Your task to perform on an android device: empty trash in the gmail app Image 0: 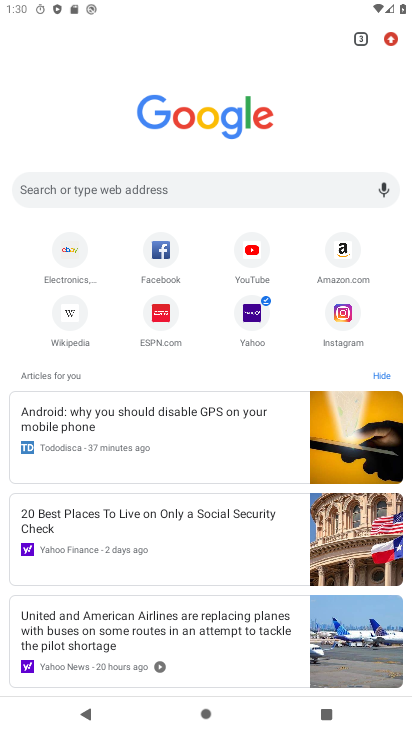
Step 0: press home button
Your task to perform on an android device: empty trash in the gmail app Image 1: 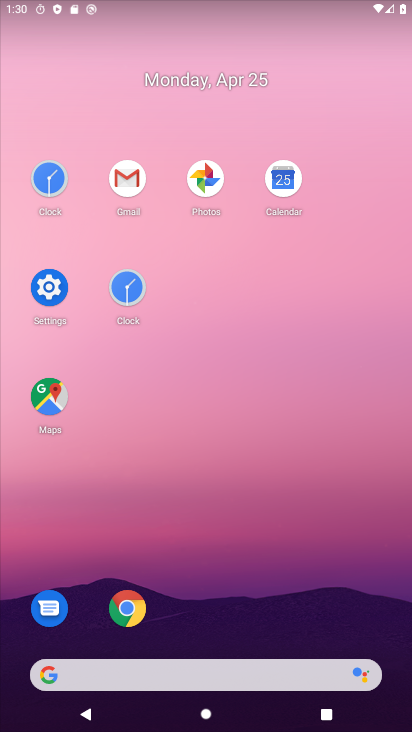
Step 1: click (130, 170)
Your task to perform on an android device: empty trash in the gmail app Image 2: 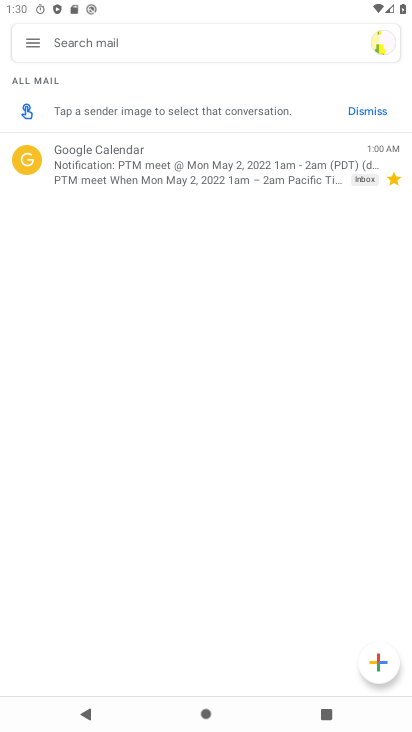
Step 2: click (30, 46)
Your task to perform on an android device: empty trash in the gmail app Image 3: 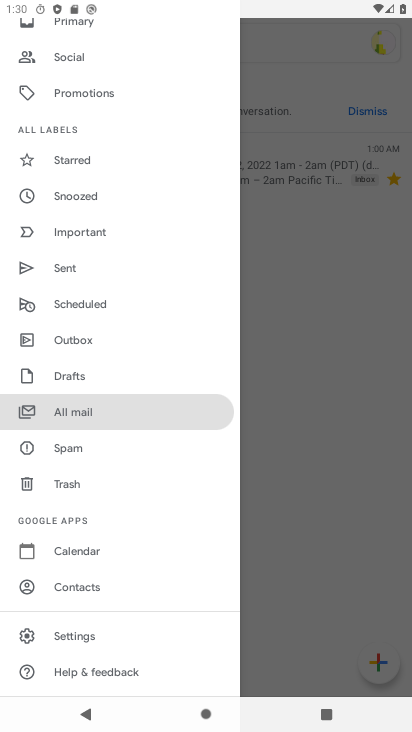
Step 3: click (82, 478)
Your task to perform on an android device: empty trash in the gmail app Image 4: 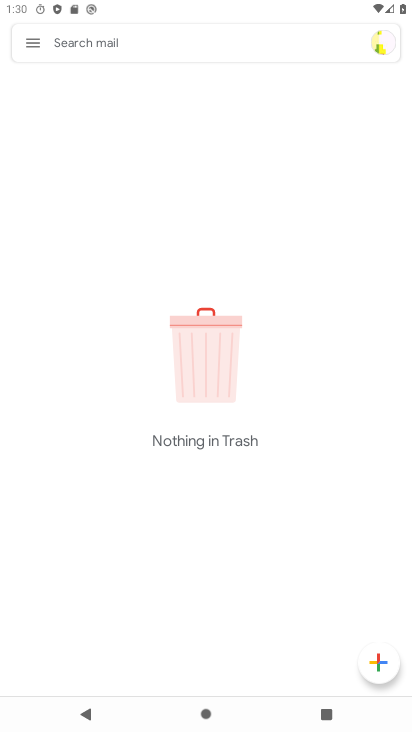
Step 4: task complete